Your task to perform on an android device: find snoozed emails in the gmail app Image 0: 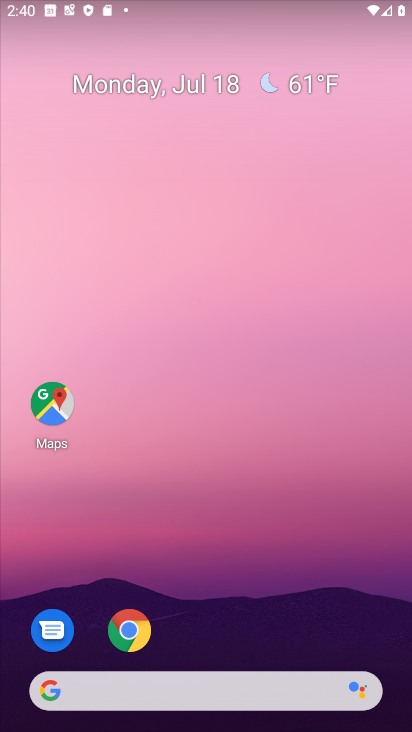
Step 0: drag from (215, 536) to (238, 0)
Your task to perform on an android device: find snoozed emails in the gmail app Image 1: 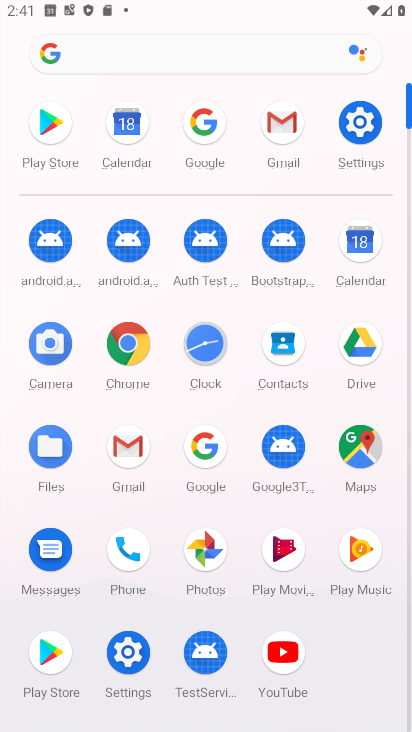
Step 1: click (287, 131)
Your task to perform on an android device: find snoozed emails in the gmail app Image 2: 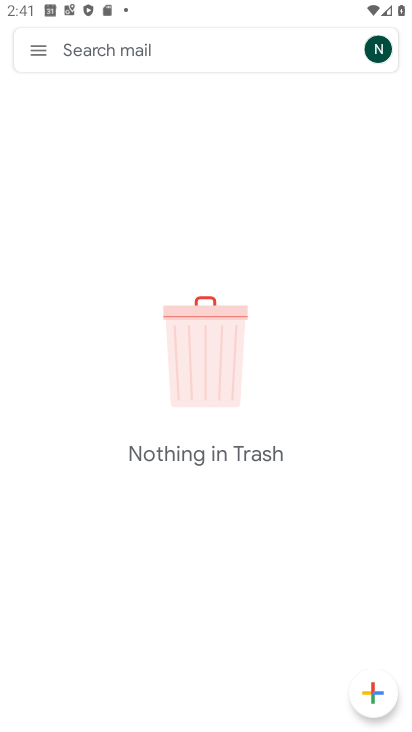
Step 2: click (44, 47)
Your task to perform on an android device: find snoozed emails in the gmail app Image 3: 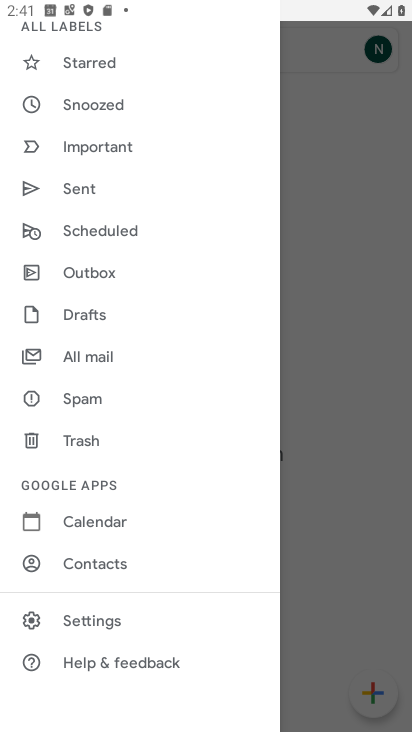
Step 3: click (84, 97)
Your task to perform on an android device: find snoozed emails in the gmail app Image 4: 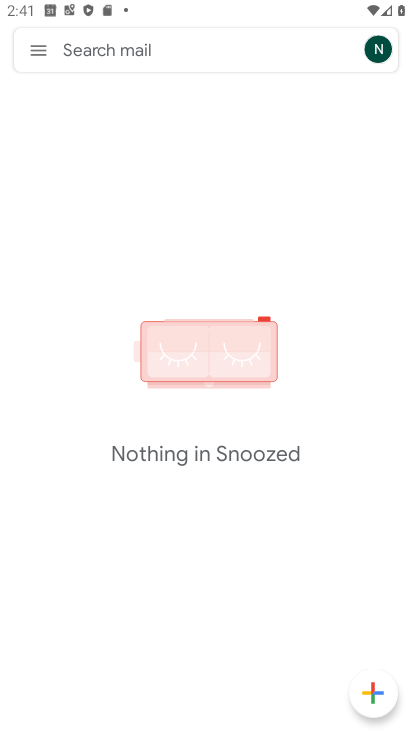
Step 4: task complete